Your task to perform on an android device: change keyboard looks Image 0: 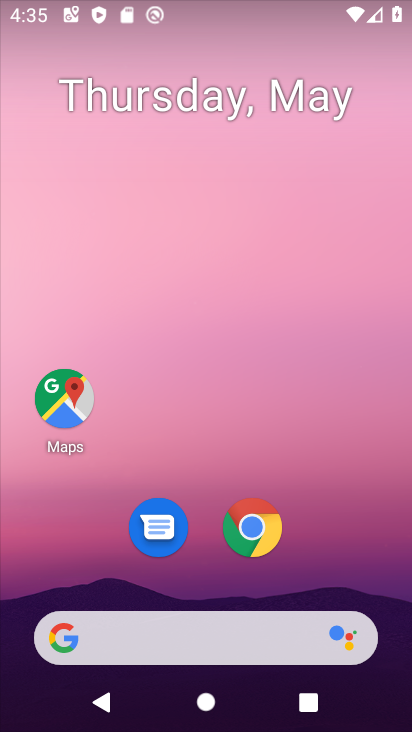
Step 0: drag from (330, 530) to (401, 294)
Your task to perform on an android device: change keyboard looks Image 1: 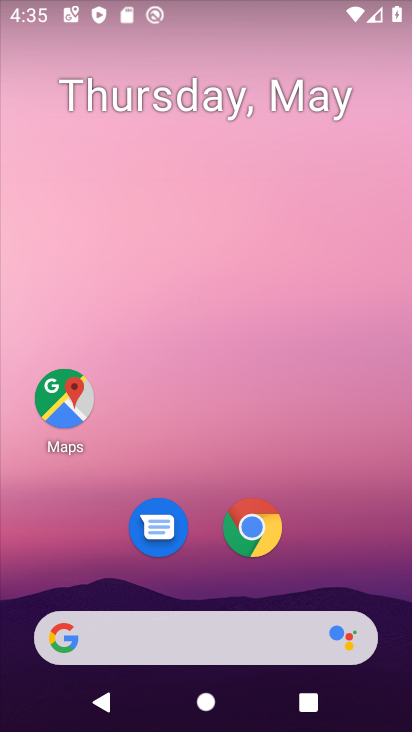
Step 1: drag from (336, 474) to (274, 0)
Your task to perform on an android device: change keyboard looks Image 2: 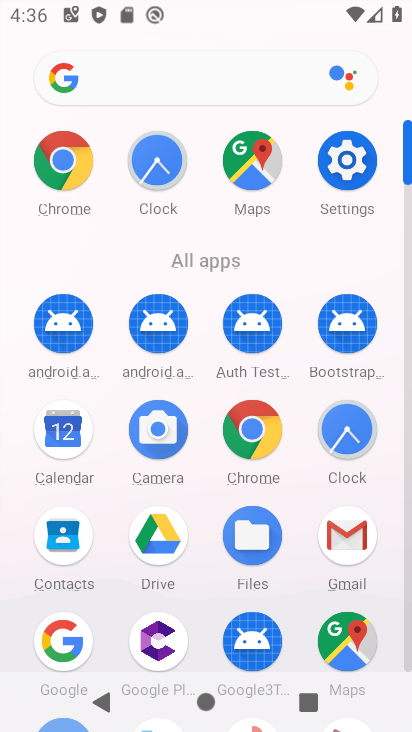
Step 2: click (346, 156)
Your task to perform on an android device: change keyboard looks Image 3: 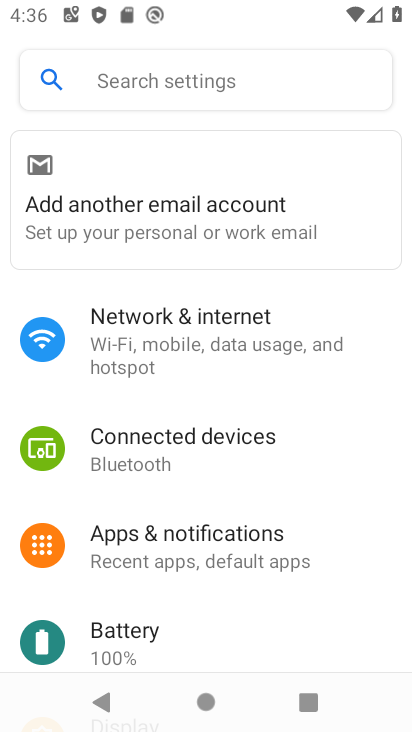
Step 3: drag from (166, 413) to (208, 169)
Your task to perform on an android device: change keyboard looks Image 4: 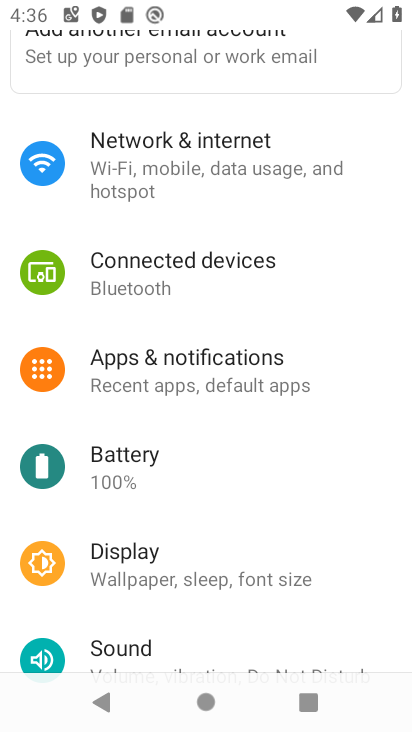
Step 4: drag from (169, 577) to (245, 149)
Your task to perform on an android device: change keyboard looks Image 5: 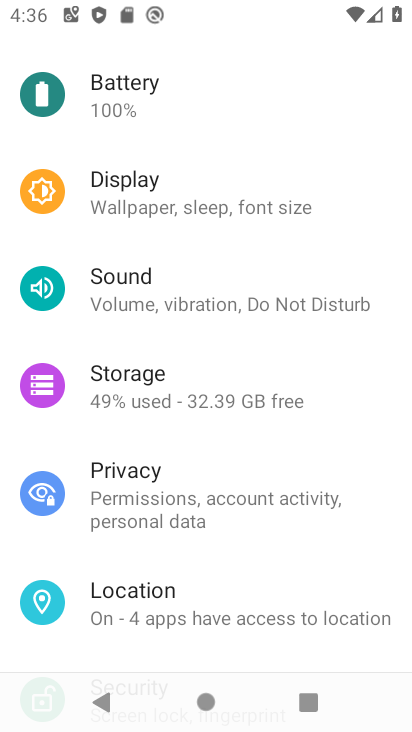
Step 5: drag from (145, 603) to (220, 159)
Your task to perform on an android device: change keyboard looks Image 6: 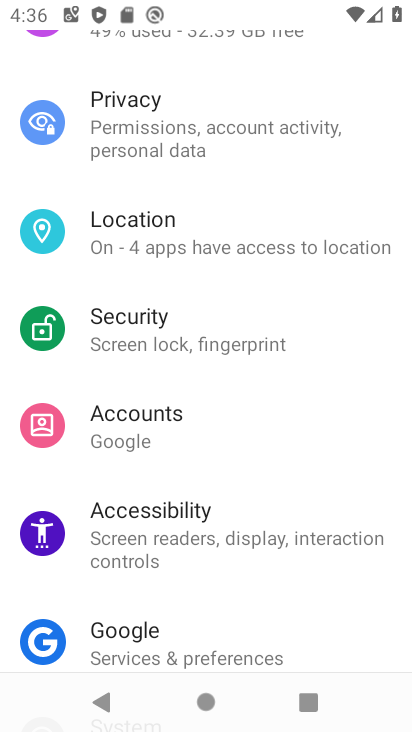
Step 6: drag from (196, 576) to (199, 92)
Your task to perform on an android device: change keyboard looks Image 7: 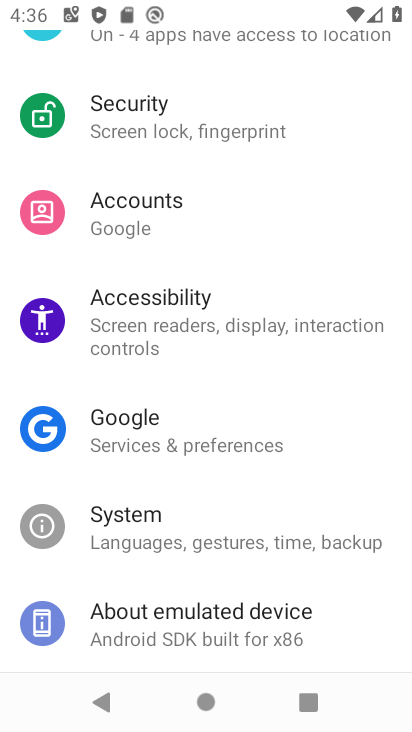
Step 7: click (145, 544)
Your task to perform on an android device: change keyboard looks Image 8: 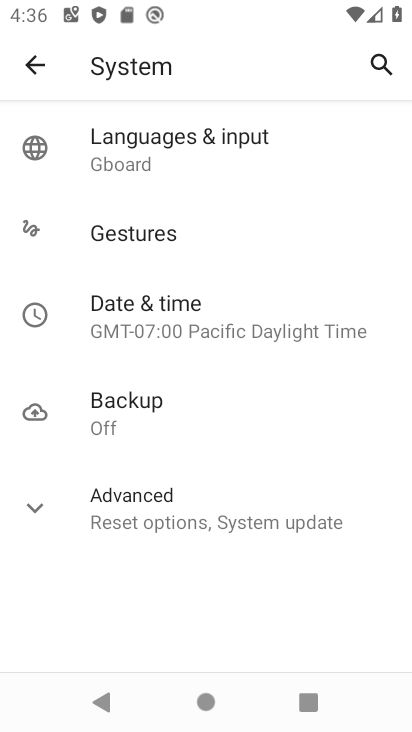
Step 8: click (160, 138)
Your task to perform on an android device: change keyboard looks Image 9: 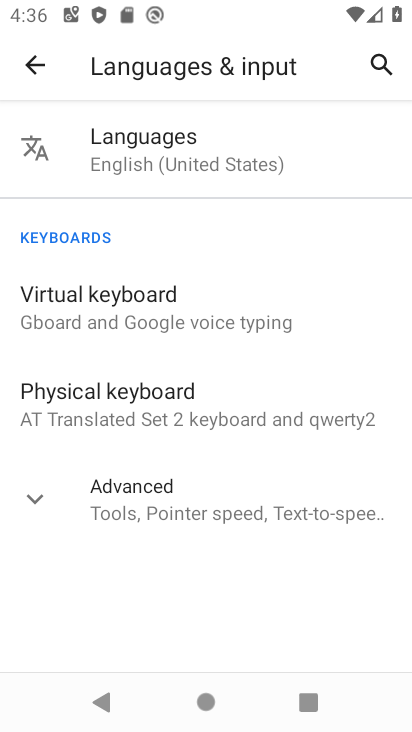
Step 9: click (110, 284)
Your task to perform on an android device: change keyboard looks Image 10: 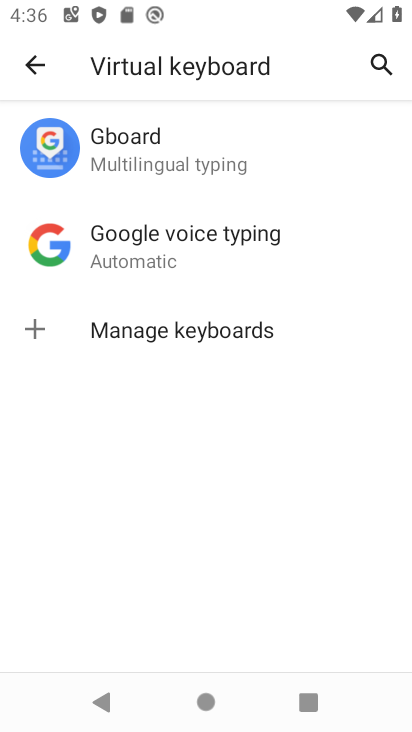
Step 10: click (109, 155)
Your task to perform on an android device: change keyboard looks Image 11: 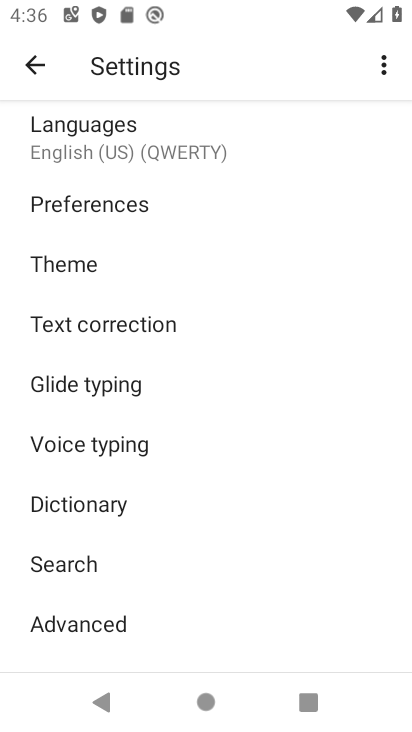
Step 11: click (89, 252)
Your task to perform on an android device: change keyboard looks Image 12: 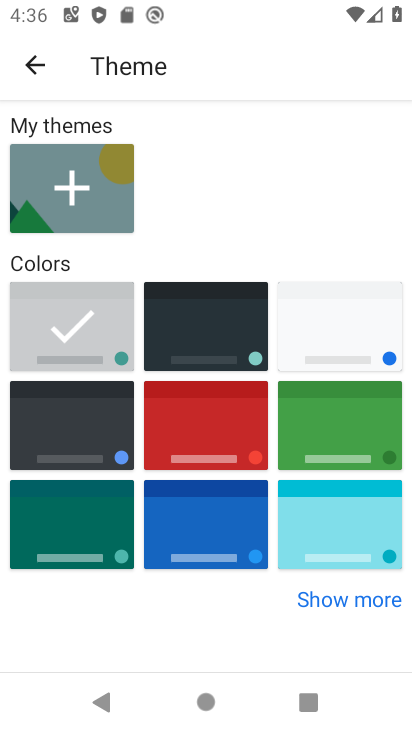
Step 12: click (164, 329)
Your task to perform on an android device: change keyboard looks Image 13: 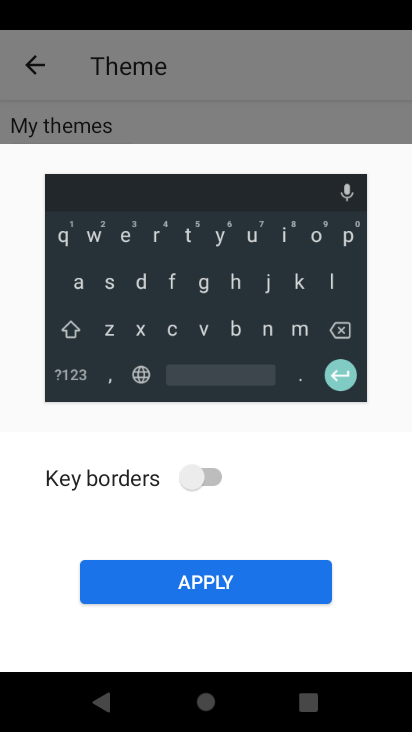
Step 13: click (189, 584)
Your task to perform on an android device: change keyboard looks Image 14: 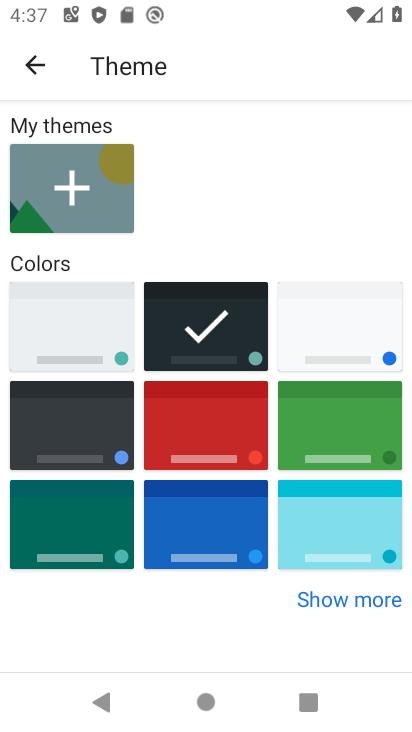
Step 14: task complete